Your task to perform on an android device: Open Google Chrome Image 0: 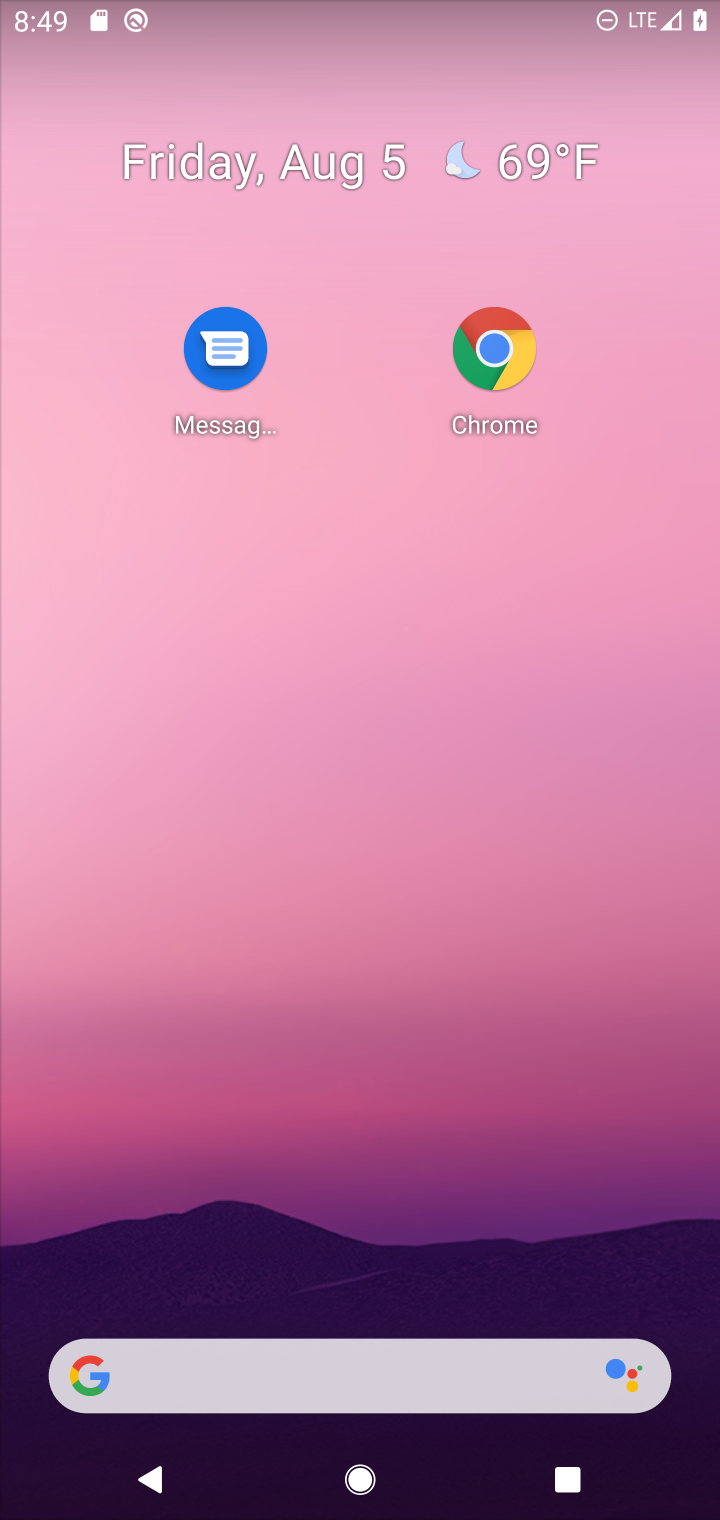
Step 0: press home button
Your task to perform on an android device: Open Google Chrome Image 1: 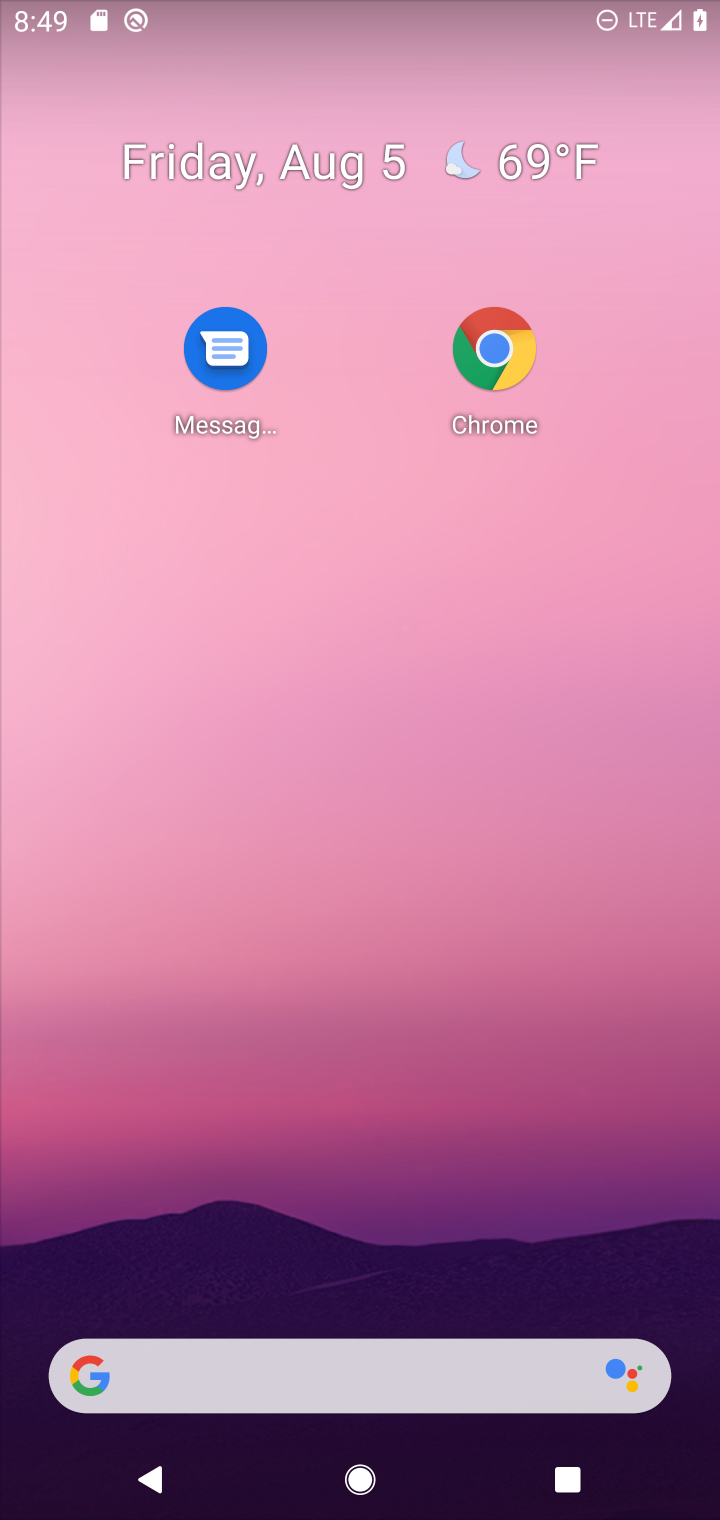
Step 1: drag from (491, 1417) to (403, 590)
Your task to perform on an android device: Open Google Chrome Image 2: 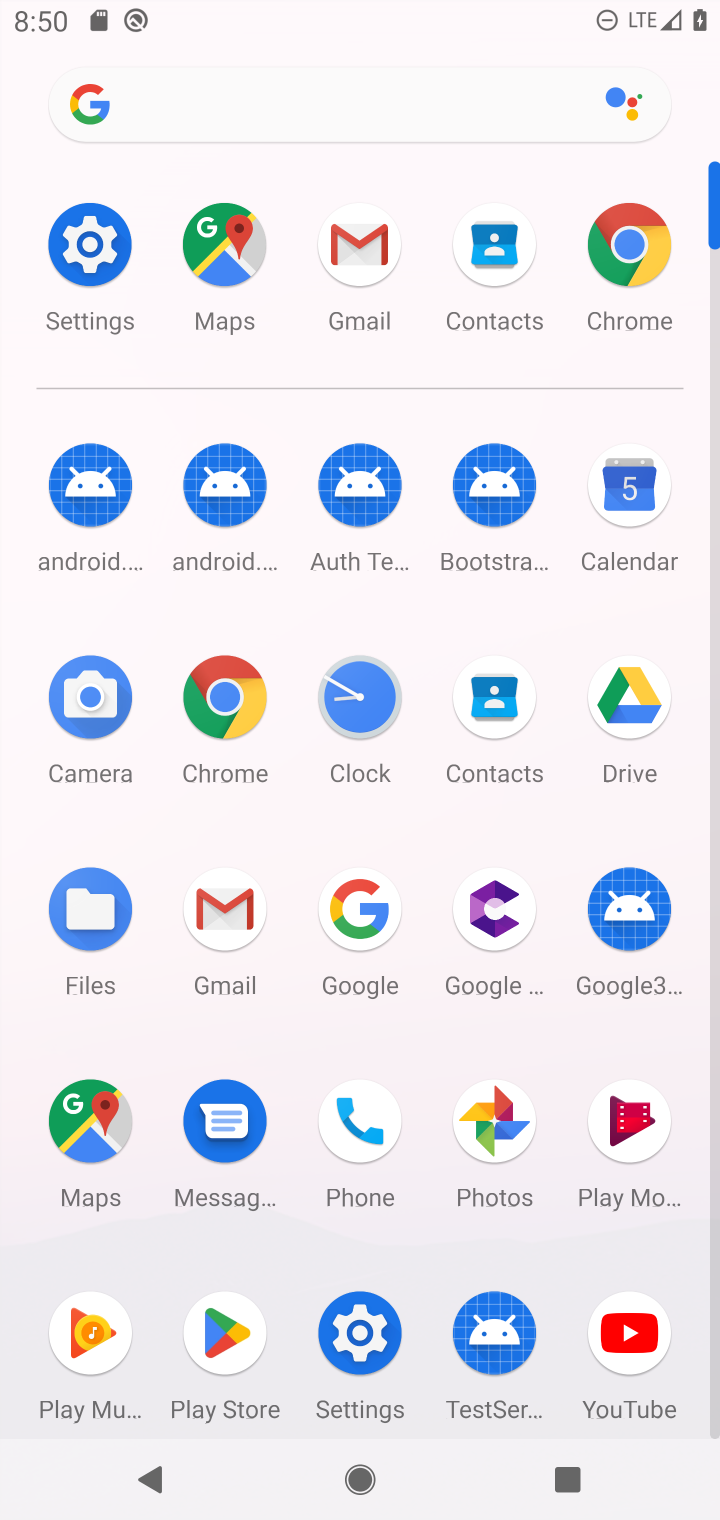
Step 2: click (627, 232)
Your task to perform on an android device: Open Google Chrome Image 3: 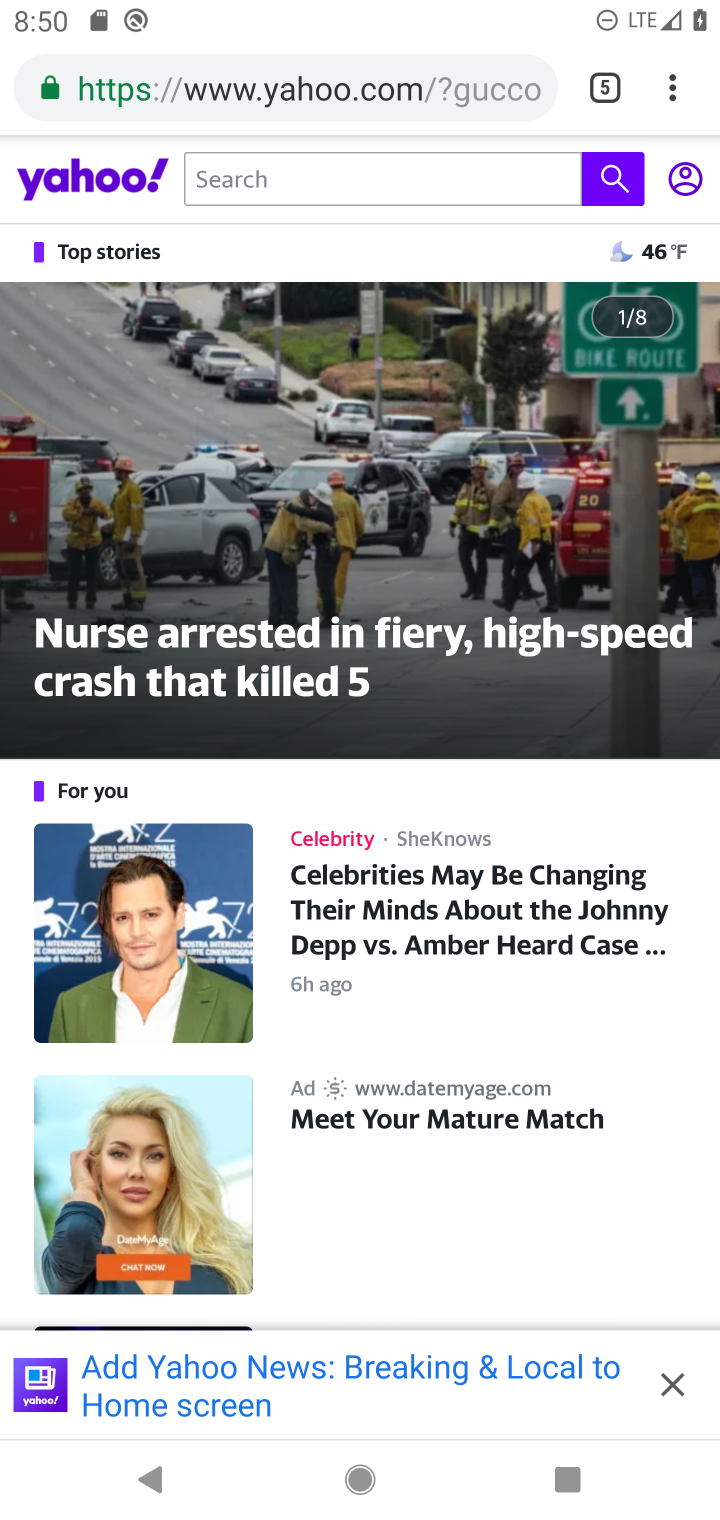
Step 3: click (609, 85)
Your task to perform on an android device: Open Google Chrome Image 4: 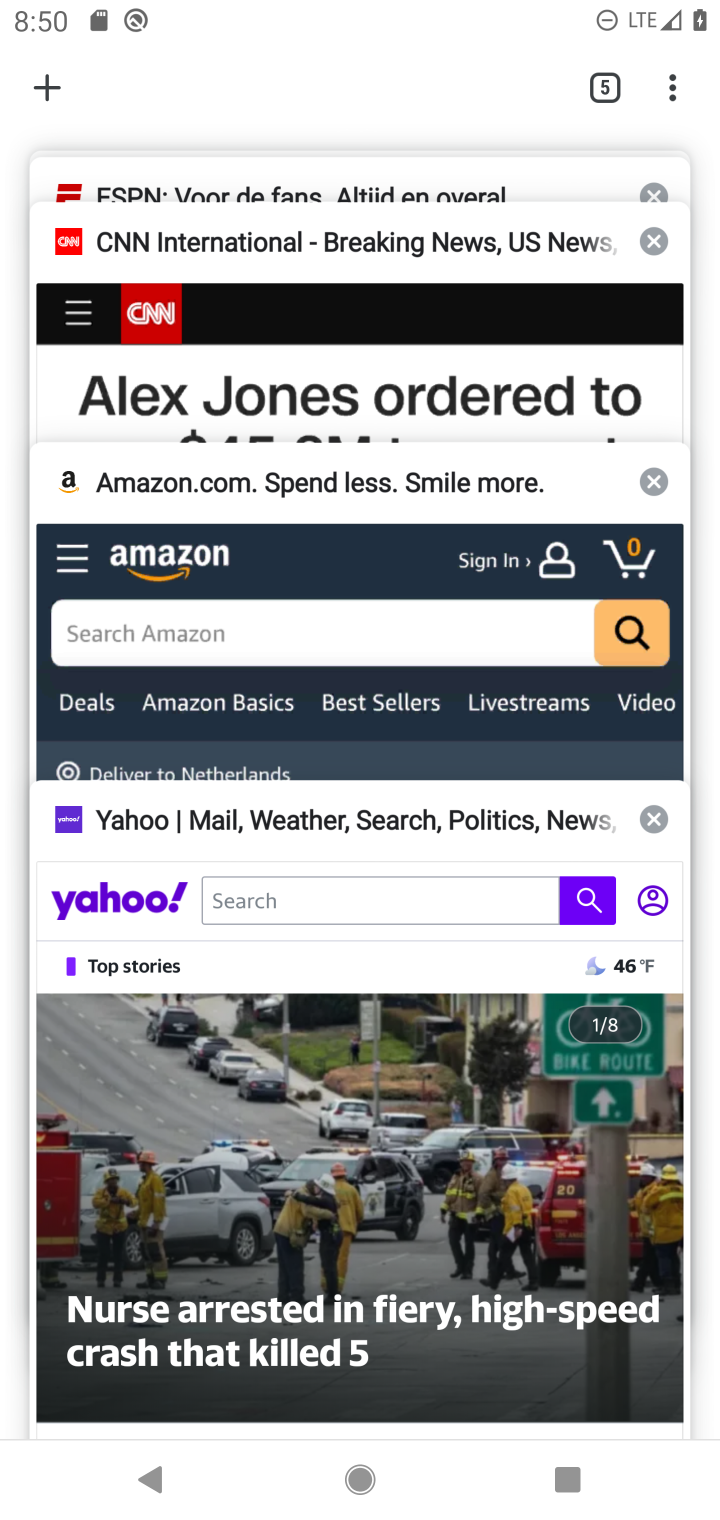
Step 4: click (48, 90)
Your task to perform on an android device: Open Google Chrome Image 5: 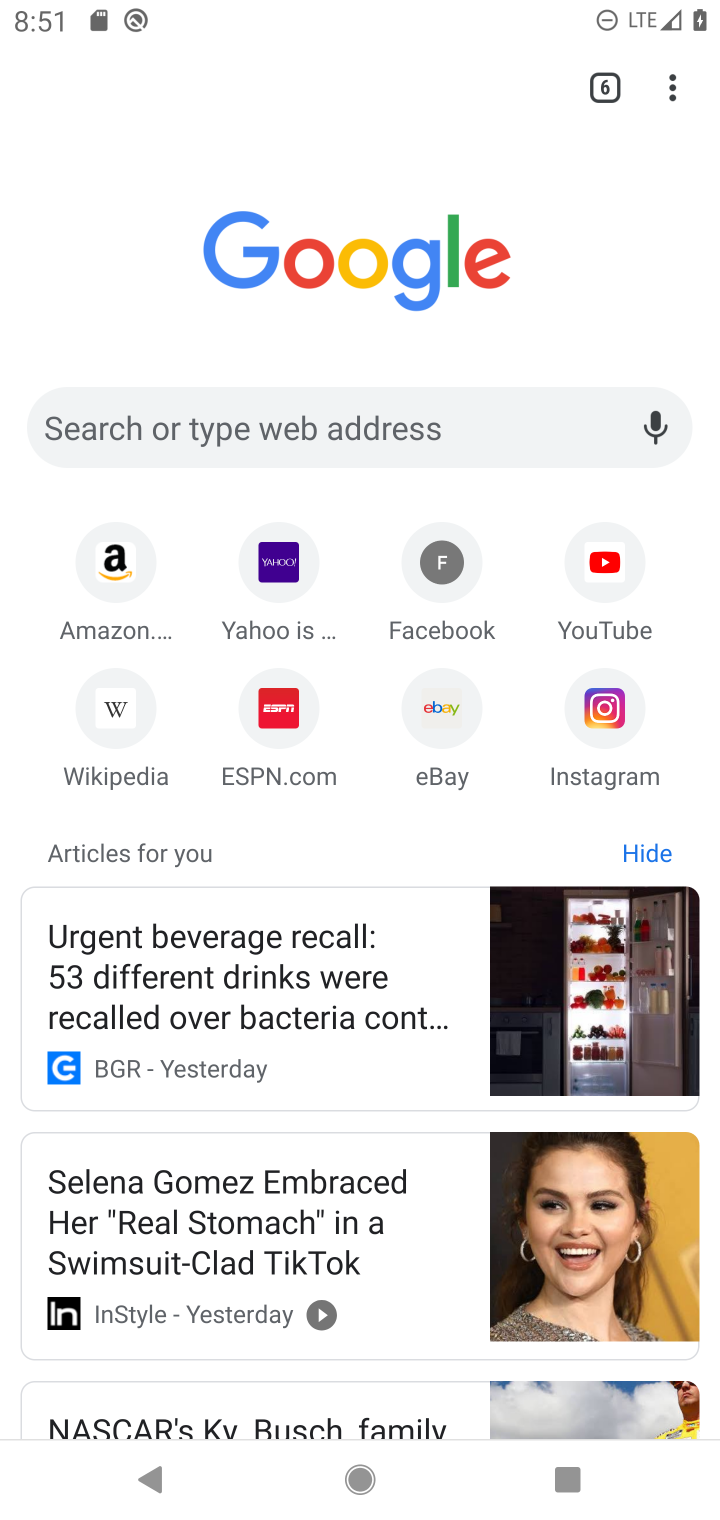
Step 5: task complete